Your task to perform on an android device: set the timer Image 0: 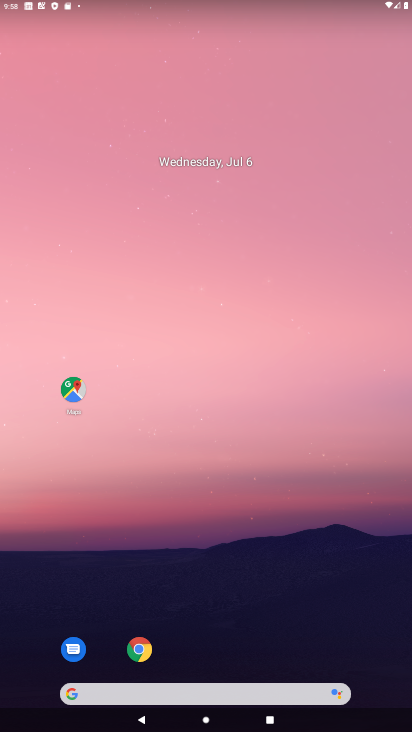
Step 0: drag from (191, 687) to (311, 45)
Your task to perform on an android device: set the timer Image 1: 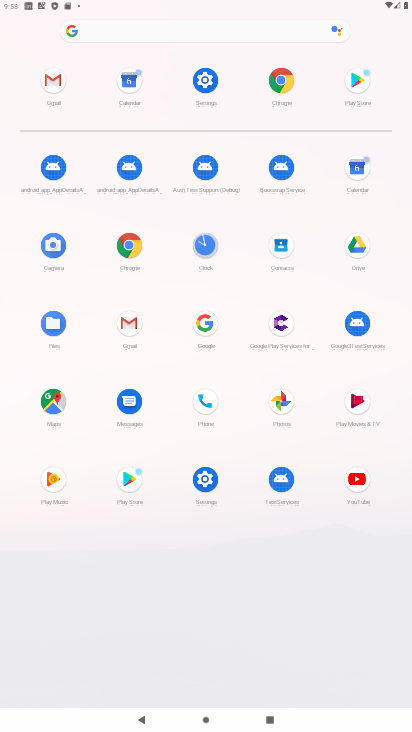
Step 1: click (213, 256)
Your task to perform on an android device: set the timer Image 2: 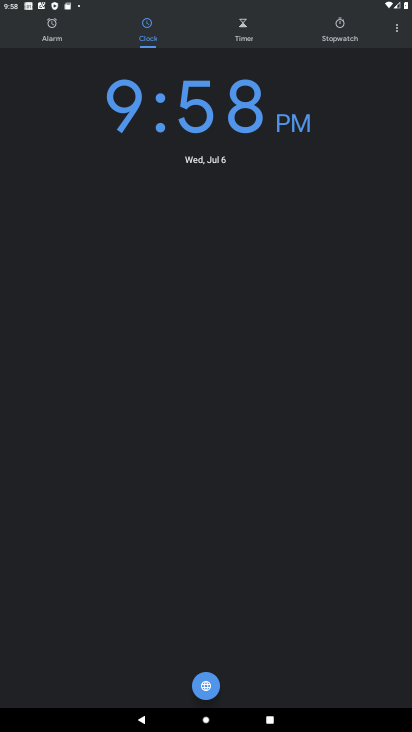
Step 2: click (234, 33)
Your task to perform on an android device: set the timer Image 3: 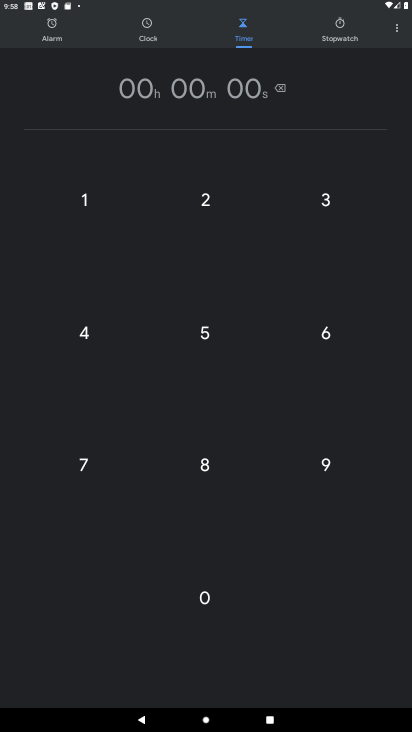
Step 3: click (203, 206)
Your task to perform on an android device: set the timer Image 4: 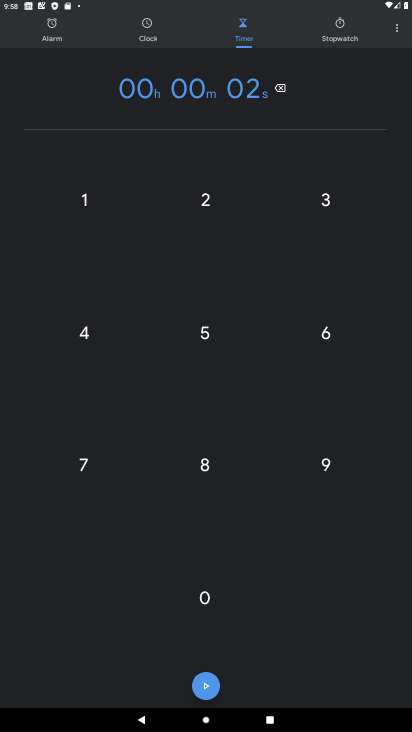
Step 4: click (205, 334)
Your task to perform on an android device: set the timer Image 5: 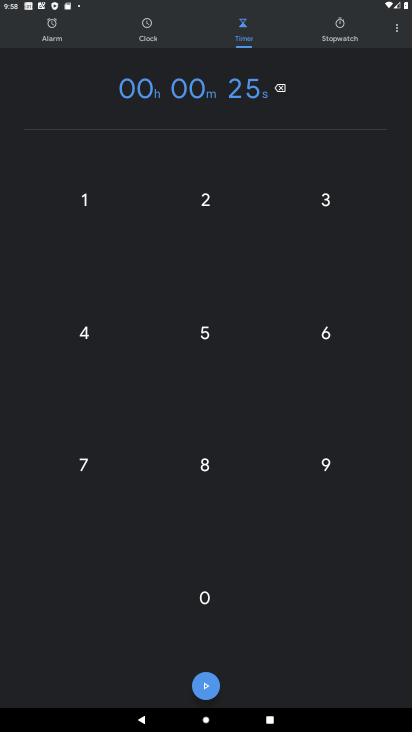
Step 5: click (330, 326)
Your task to perform on an android device: set the timer Image 6: 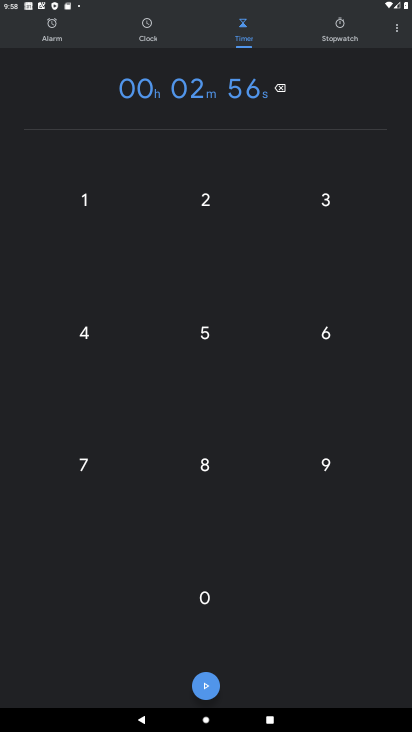
Step 6: click (326, 465)
Your task to perform on an android device: set the timer Image 7: 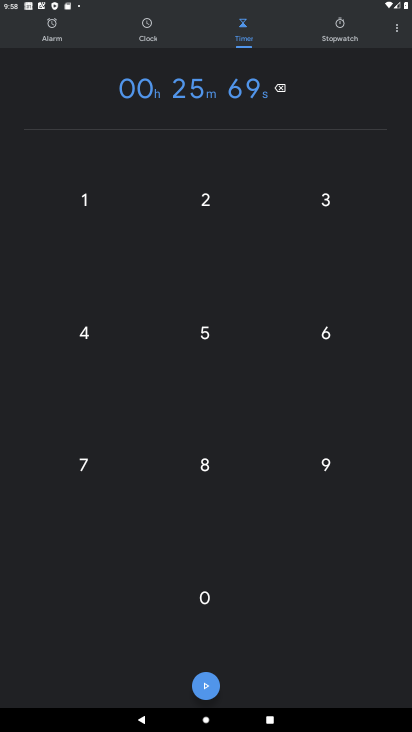
Step 7: click (201, 459)
Your task to perform on an android device: set the timer Image 8: 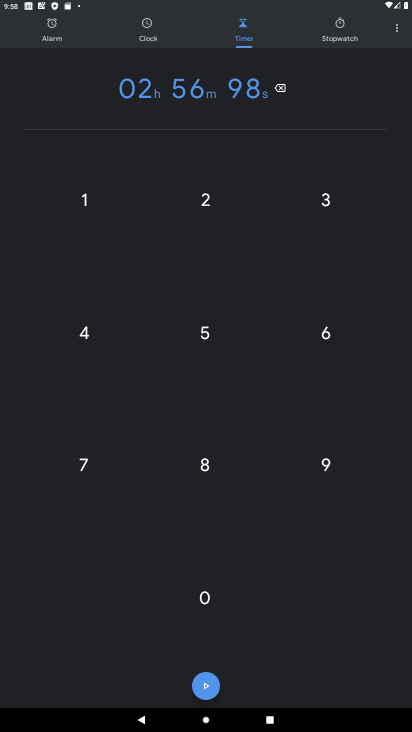
Step 8: task complete